Your task to perform on an android device: Open settings on Google Maps Image 0: 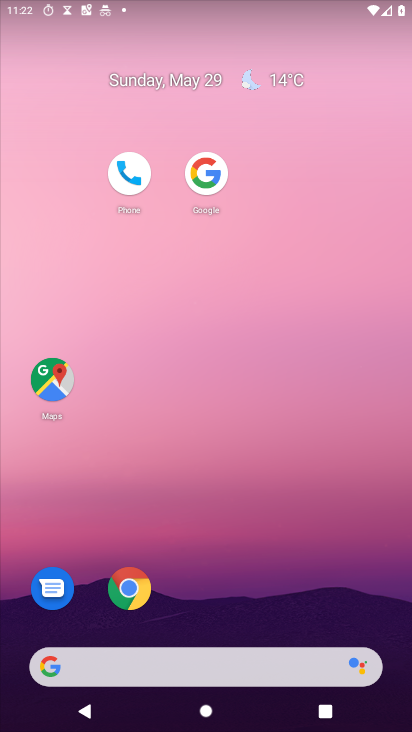
Step 0: drag from (205, 343) to (166, 92)
Your task to perform on an android device: Open settings on Google Maps Image 1: 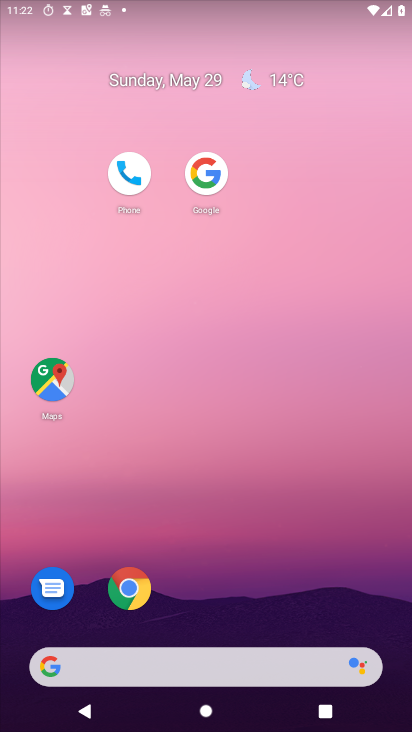
Step 1: drag from (251, 680) to (167, 111)
Your task to perform on an android device: Open settings on Google Maps Image 2: 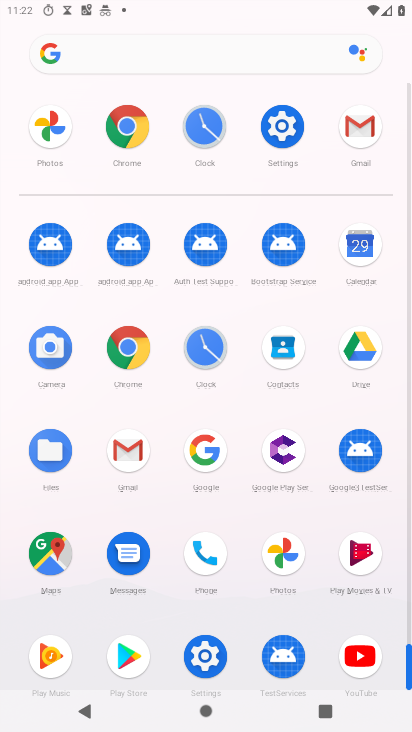
Step 2: click (42, 567)
Your task to perform on an android device: Open settings on Google Maps Image 3: 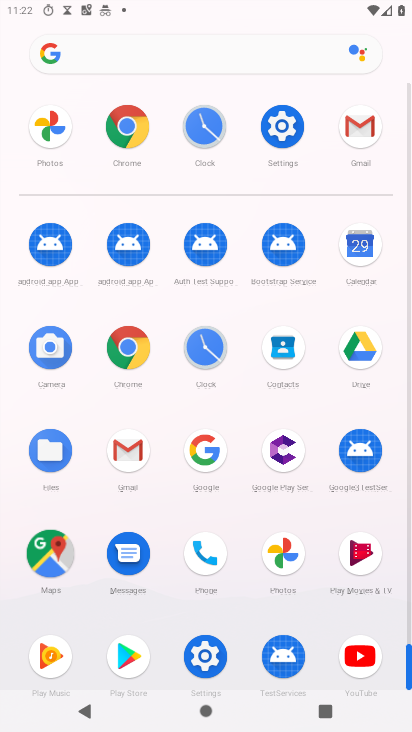
Step 3: click (43, 567)
Your task to perform on an android device: Open settings on Google Maps Image 4: 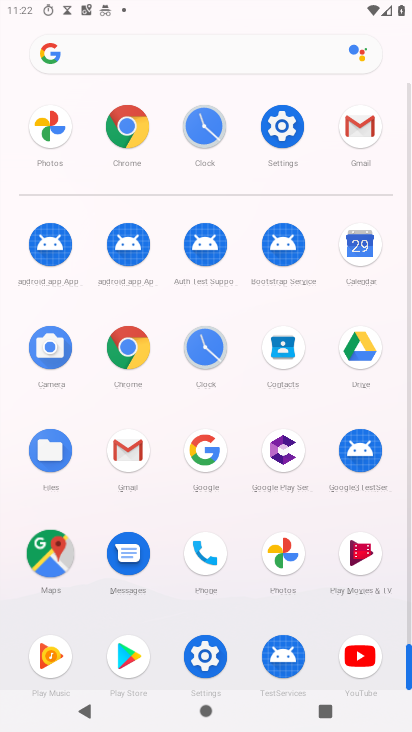
Step 4: click (42, 565)
Your task to perform on an android device: Open settings on Google Maps Image 5: 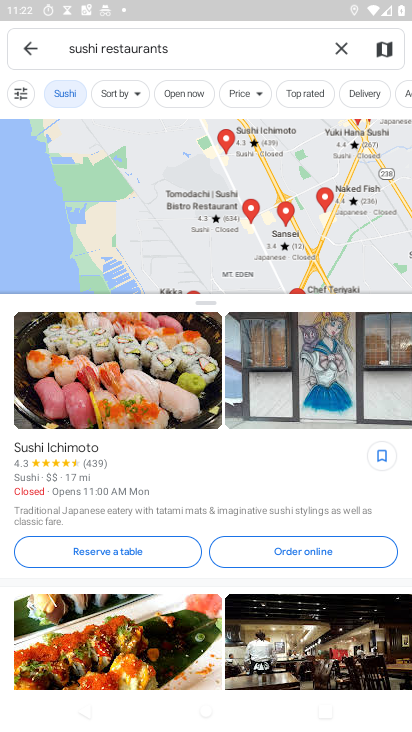
Step 5: click (22, 45)
Your task to perform on an android device: Open settings on Google Maps Image 6: 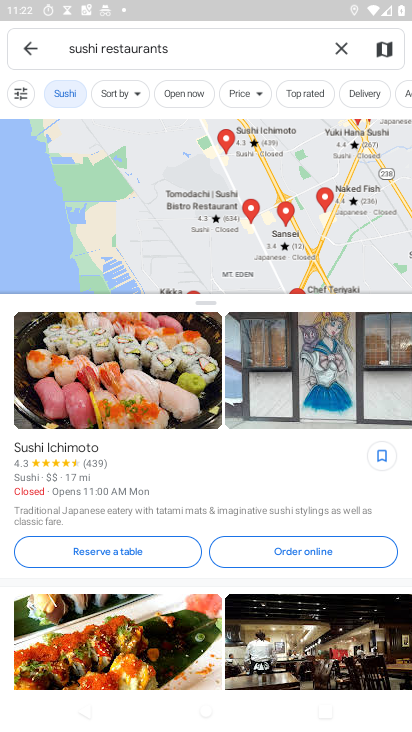
Step 6: click (23, 47)
Your task to perform on an android device: Open settings on Google Maps Image 7: 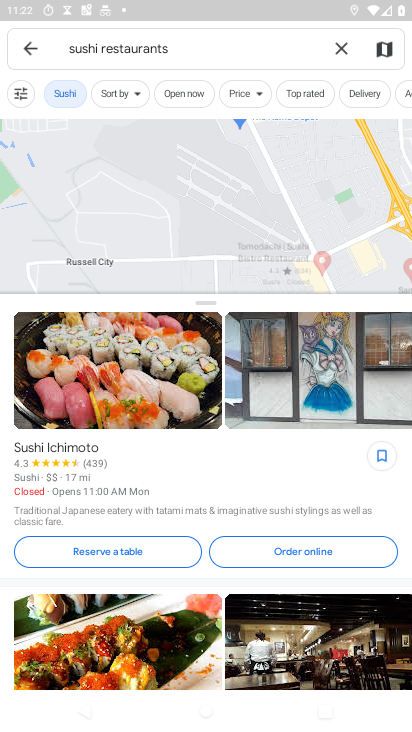
Step 7: click (23, 47)
Your task to perform on an android device: Open settings on Google Maps Image 8: 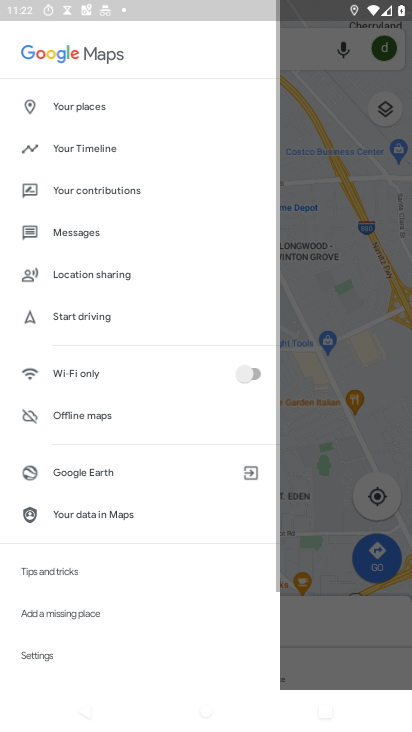
Step 8: click (28, 52)
Your task to perform on an android device: Open settings on Google Maps Image 9: 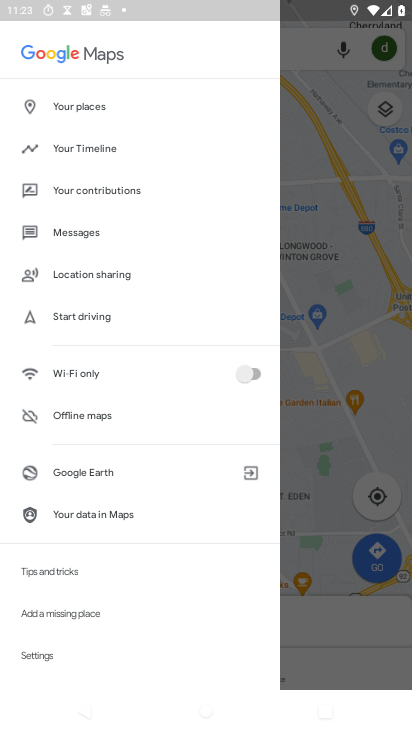
Step 9: click (78, 141)
Your task to perform on an android device: Open settings on Google Maps Image 10: 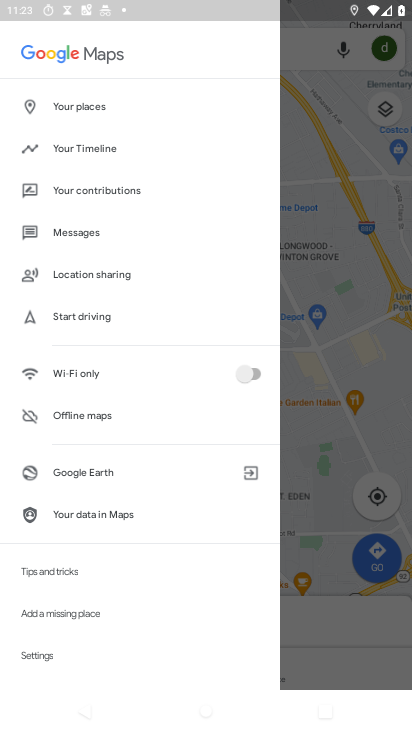
Step 10: click (77, 142)
Your task to perform on an android device: Open settings on Google Maps Image 11: 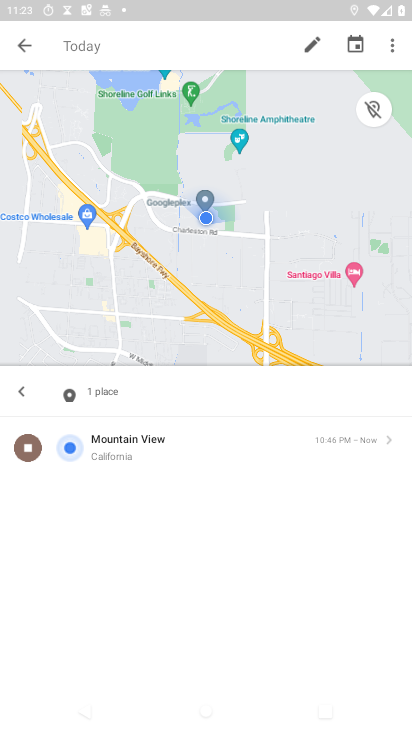
Step 11: drag from (391, 51) to (304, 302)
Your task to perform on an android device: Open settings on Google Maps Image 12: 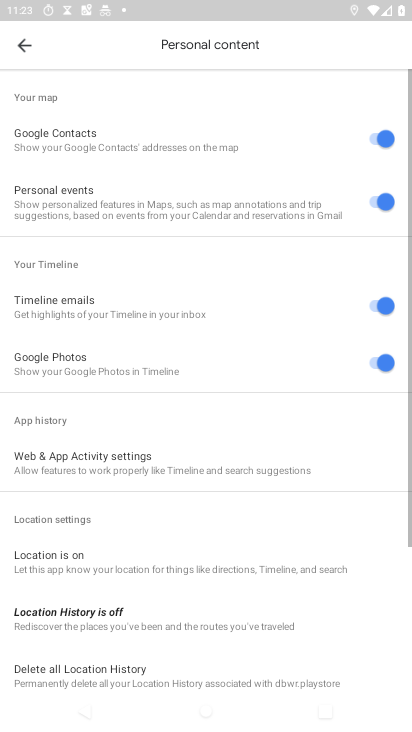
Step 12: click (331, 291)
Your task to perform on an android device: Open settings on Google Maps Image 13: 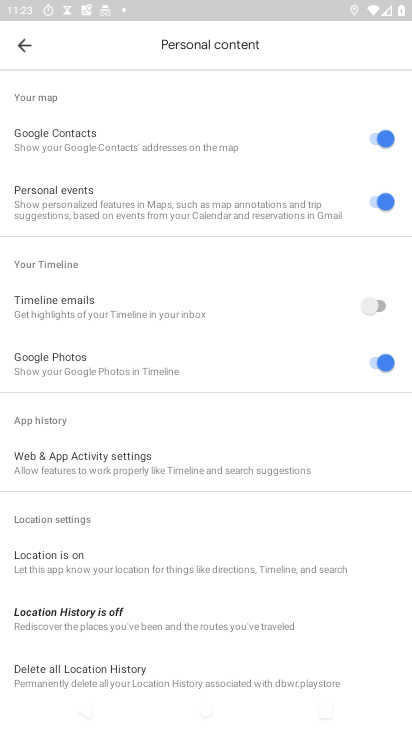
Step 13: task complete